Your task to perform on an android device: turn on notifications settings in the gmail app Image 0: 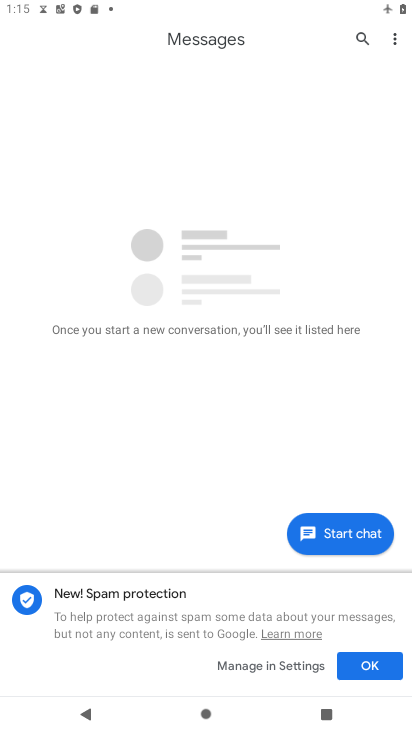
Step 0: press back button
Your task to perform on an android device: turn on notifications settings in the gmail app Image 1: 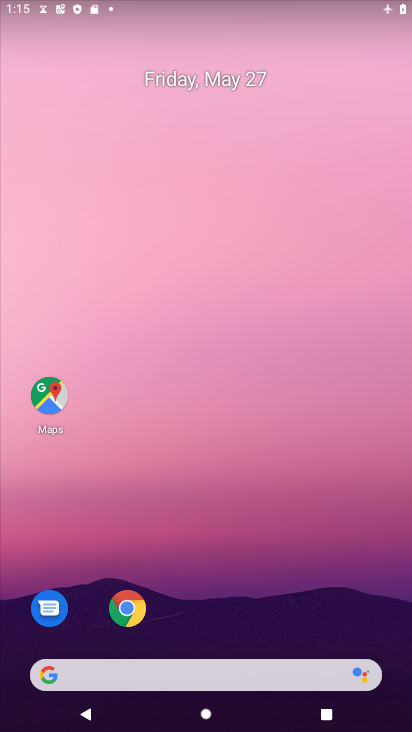
Step 1: drag from (163, 588) to (249, 88)
Your task to perform on an android device: turn on notifications settings in the gmail app Image 2: 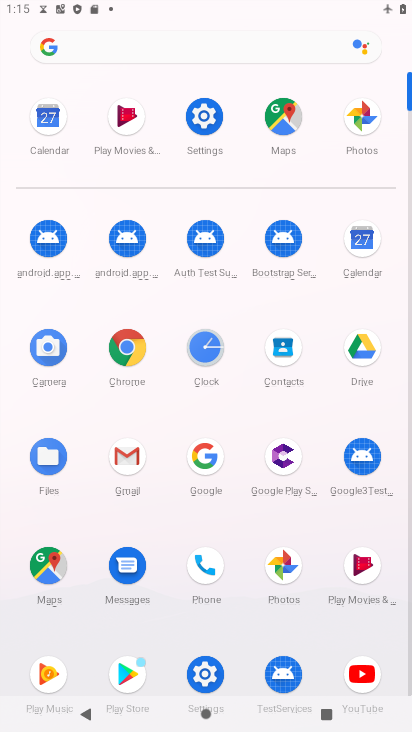
Step 2: click (120, 462)
Your task to perform on an android device: turn on notifications settings in the gmail app Image 3: 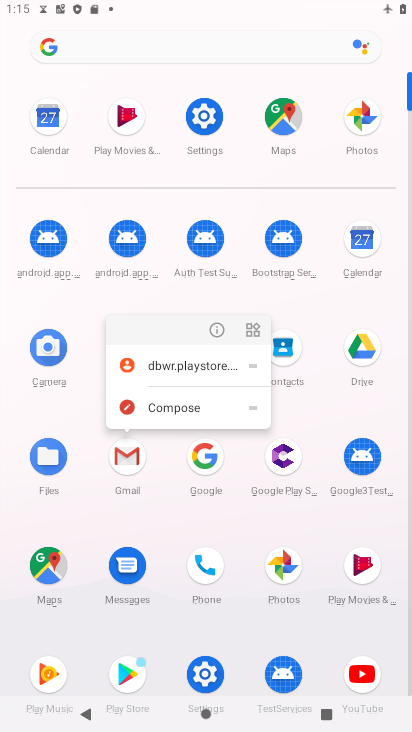
Step 3: click (217, 333)
Your task to perform on an android device: turn on notifications settings in the gmail app Image 4: 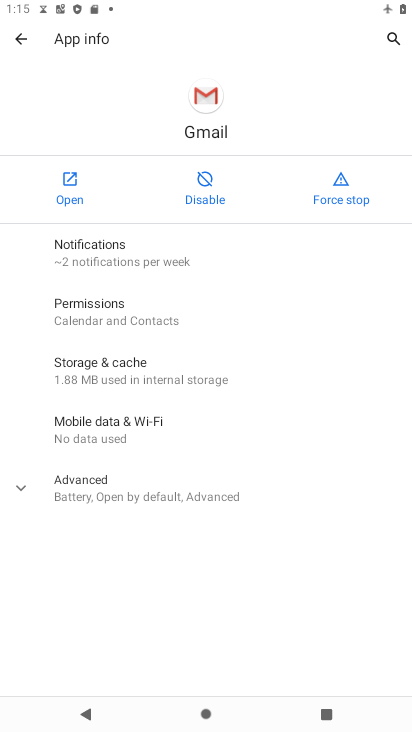
Step 4: click (188, 262)
Your task to perform on an android device: turn on notifications settings in the gmail app Image 5: 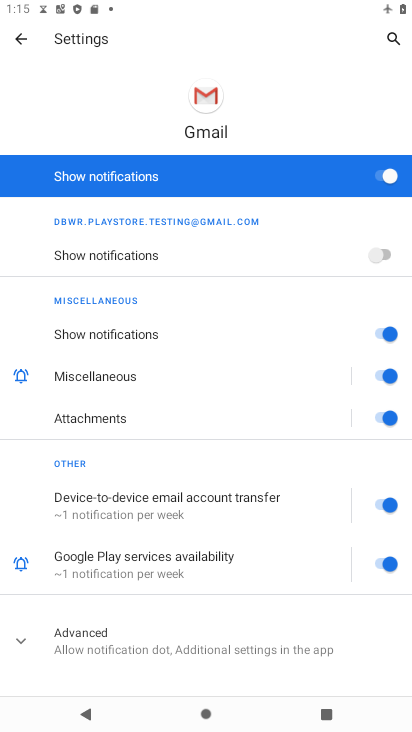
Step 5: task complete